Your task to perform on an android device: Open Google Chrome and open the bookmarks view Image 0: 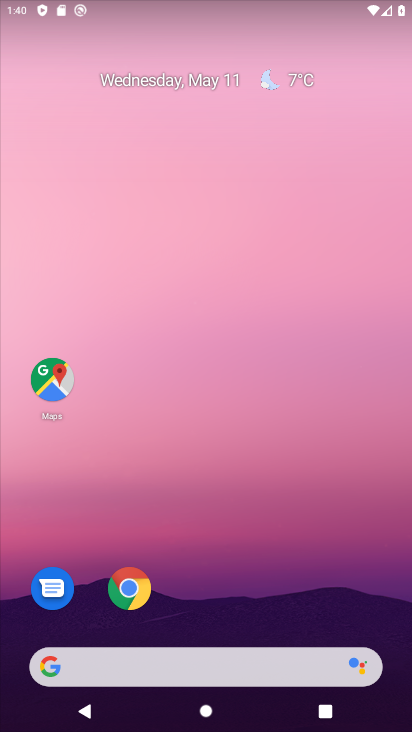
Step 0: click (131, 592)
Your task to perform on an android device: Open Google Chrome and open the bookmarks view Image 1: 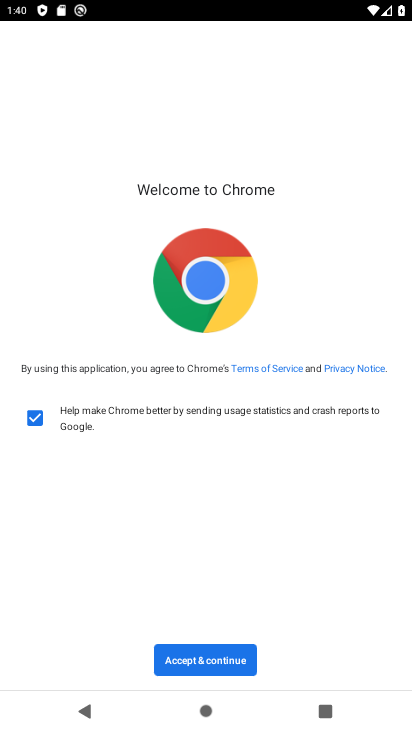
Step 1: click (186, 674)
Your task to perform on an android device: Open Google Chrome and open the bookmarks view Image 2: 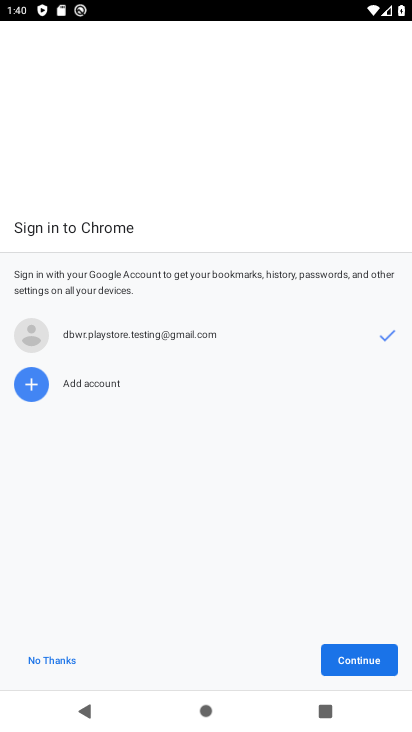
Step 2: click (359, 667)
Your task to perform on an android device: Open Google Chrome and open the bookmarks view Image 3: 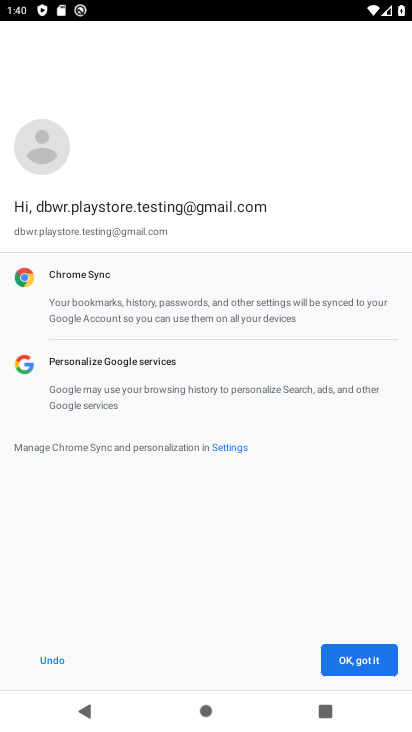
Step 3: click (359, 667)
Your task to perform on an android device: Open Google Chrome and open the bookmarks view Image 4: 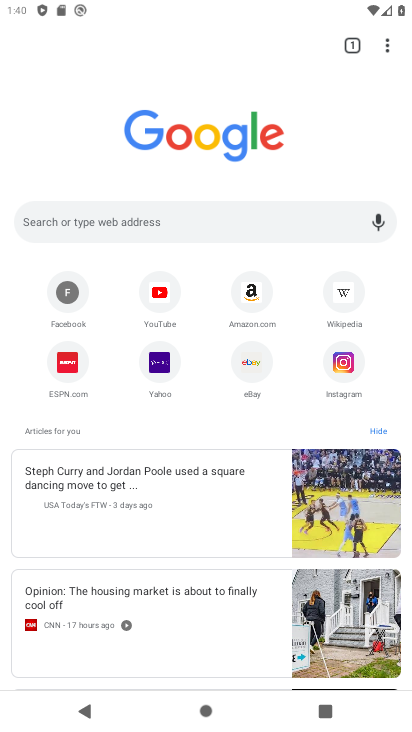
Step 4: click (383, 49)
Your task to perform on an android device: Open Google Chrome and open the bookmarks view Image 5: 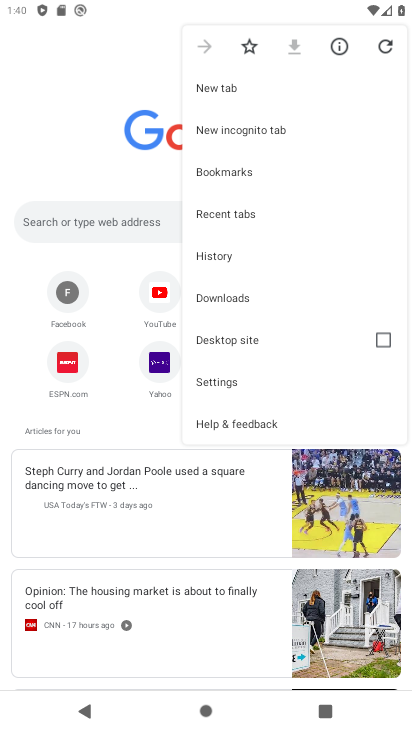
Step 5: click (276, 182)
Your task to perform on an android device: Open Google Chrome and open the bookmarks view Image 6: 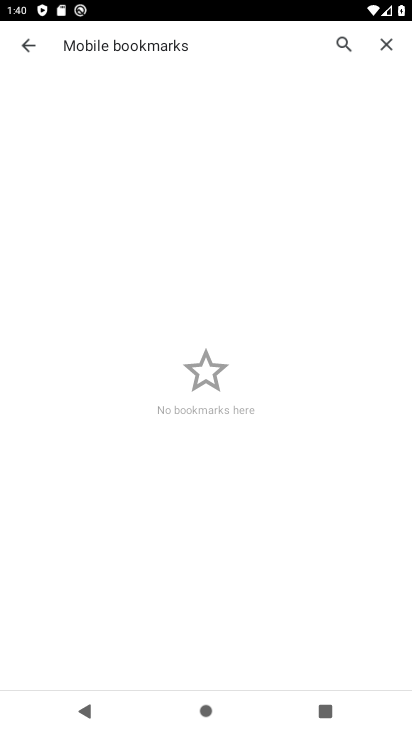
Step 6: task complete